Your task to perform on an android device: find snoozed emails in the gmail app Image 0: 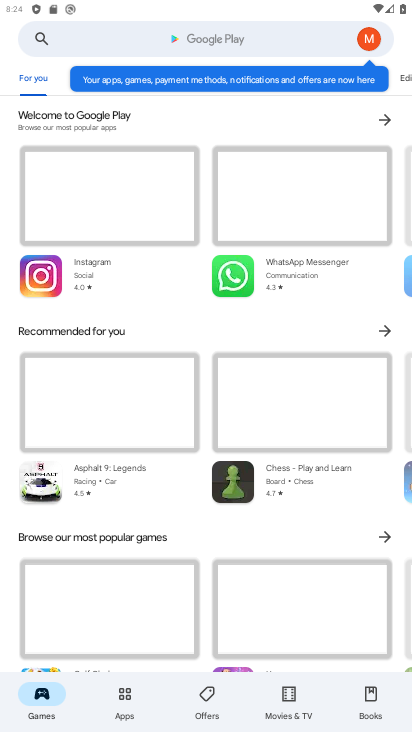
Step 0: press home button
Your task to perform on an android device: find snoozed emails in the gmail app Image 1: 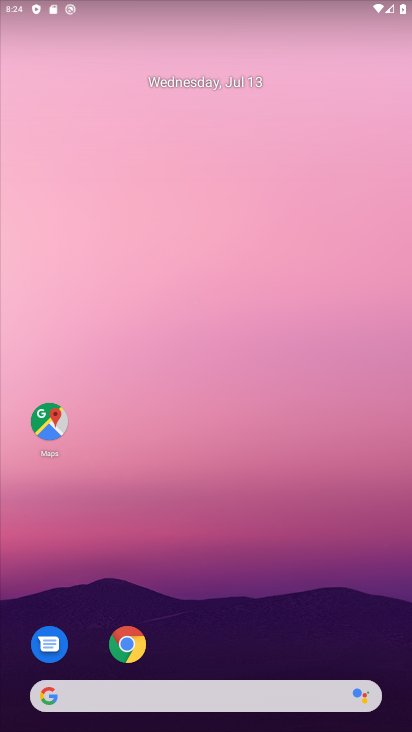
Step 1: drag from (198, 729) to (198, 681)
Your task to perform on an android device: find snoozed emails in the gmail app Image 2: 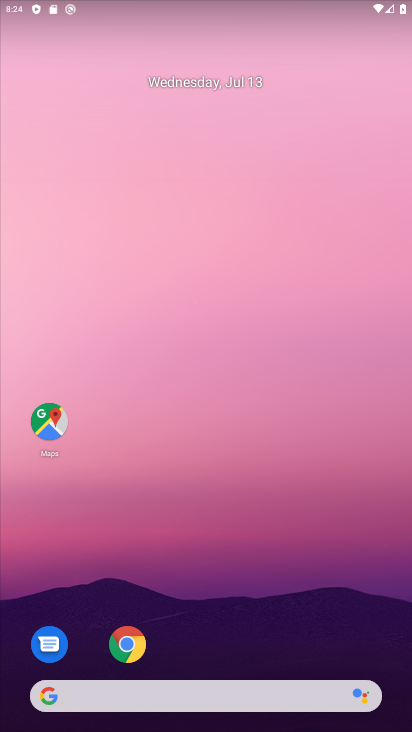
Step 2: drag from (189, 497) to (206, 176)
Your task to perform on an android device: find snoozed emails in the gmail app Image 3: 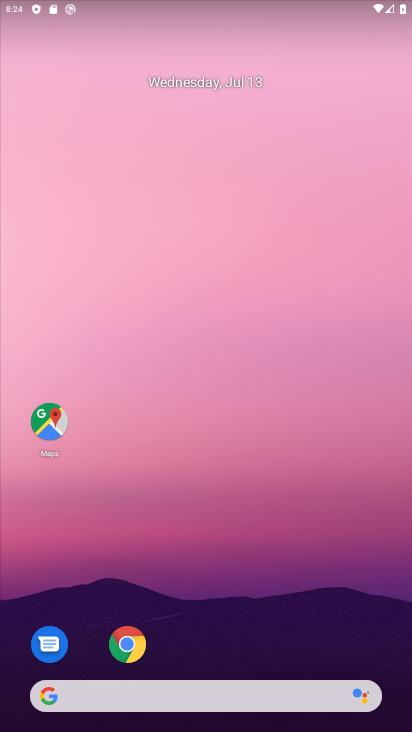
Step 3: drag from (224, 727) to (224, 132)
Your task to perform on an android device: find snoozed emails in the gmail app Image 4: 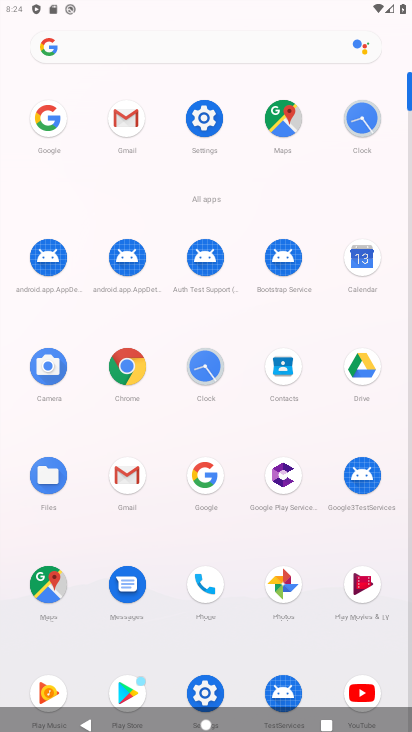
Step 4: click (120, 476)
Your task to perform on an android device: find snoozed emails in the gmail app Image 5: 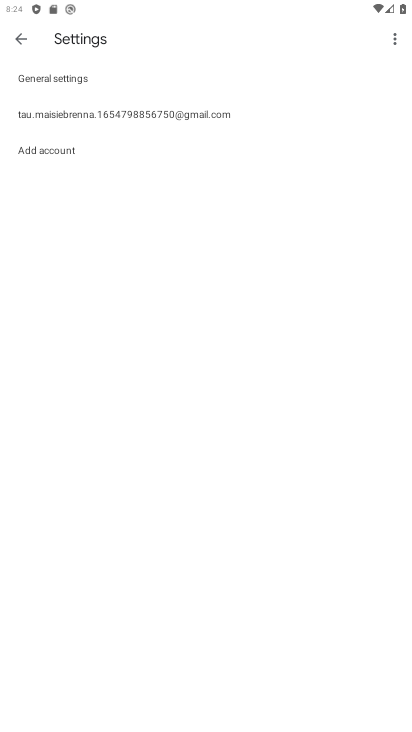
Step 5: click (17, 35)
Your task to perform on an android device: find snoozed emails in the gmail app Image 6: 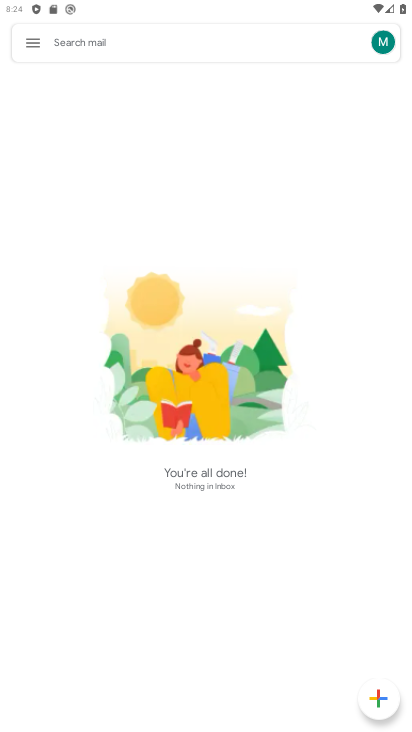
Step 6: click (29, 37)
Your task to perform on an android device: find snoozed emails in the gmail app Image 7: 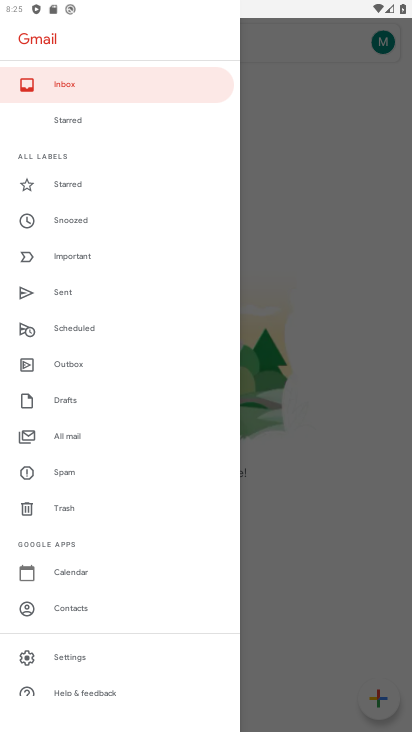
Step 7: click (70, 220)
Your task to perform on an android device: find snoozed emails in the gmail app Image 8: 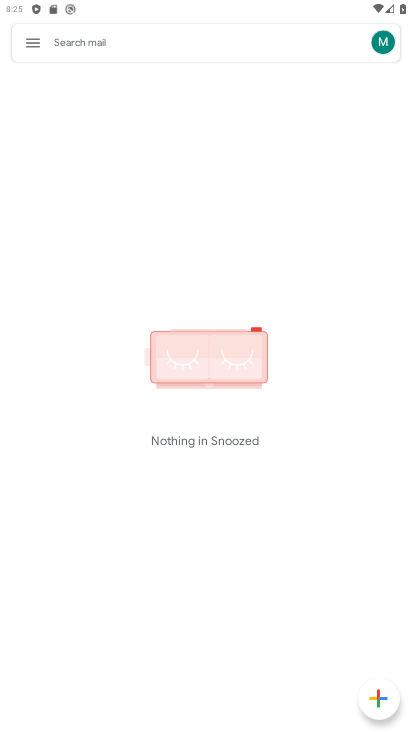
Step 8: task complete